Your task to perform on an android device: Open the Play Movies app and select the watchlist tab. Image 0: 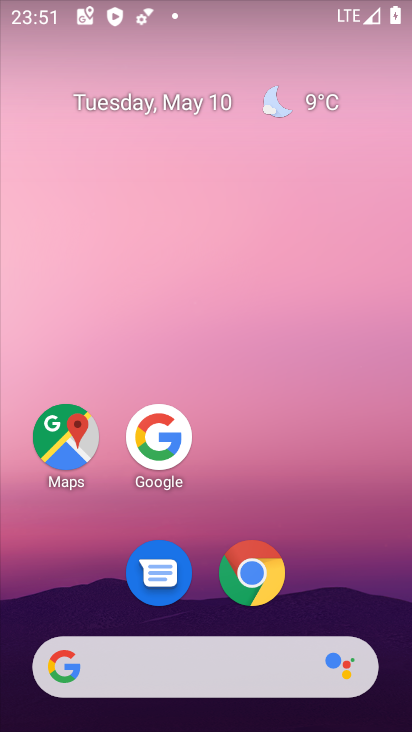
Step 0: drag from (158, 665) to (316, 262)
Your task to perform on an android device: Open the Play Movies app and select the watchlist tab. Image 1: 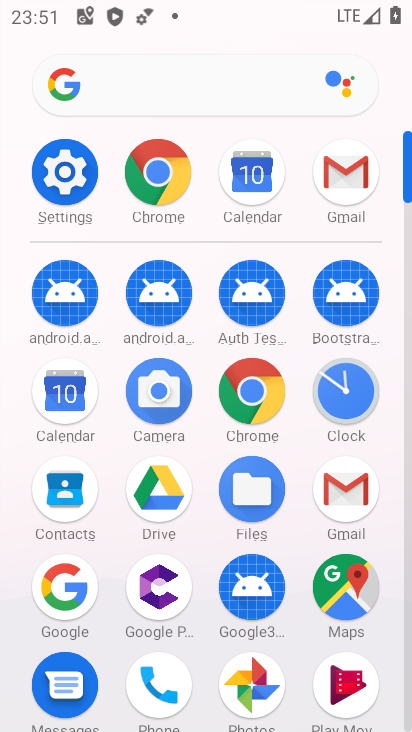
Step 1: click (334, 678)
Your task to perform on an android device: Open the Play Movies app and select the watchlist tab. Image 2: 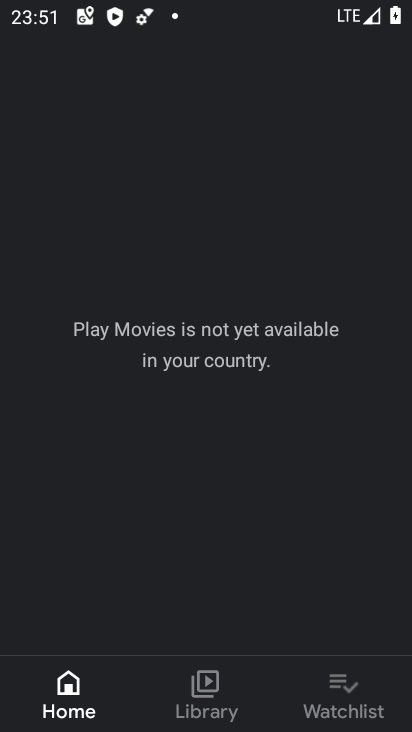
Step 2: click (353, 704)
Your task to perform on an android device: Open the Play Movies app and select the watchlist tab. Image 3: 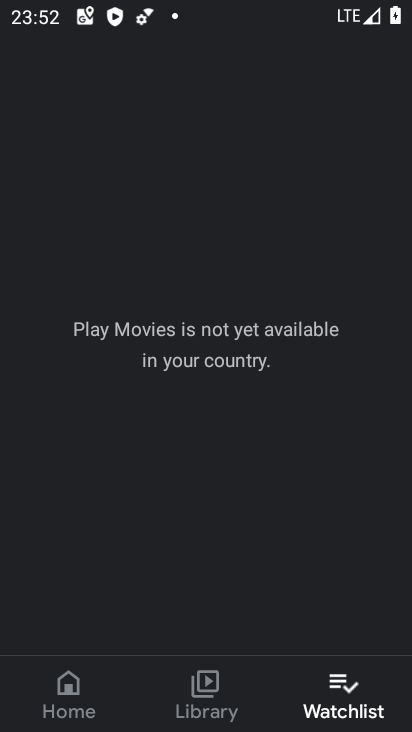
Step 3: task complete